Your task to perform on an android device: turn on airplane mode Image 0: 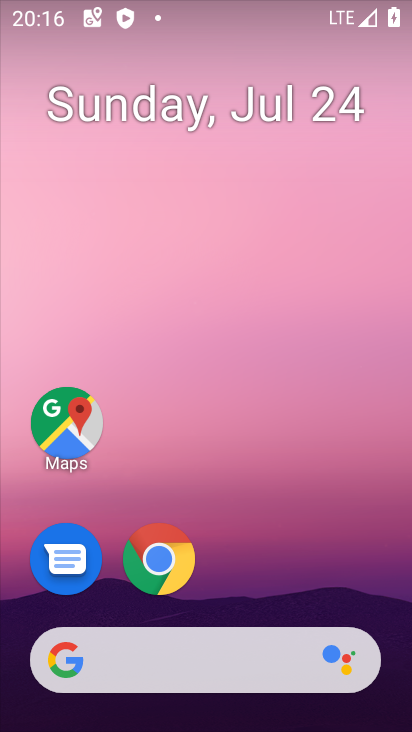
Step 0: press home button
Your task to perform on an android device: turn on airplane mode Image 1: 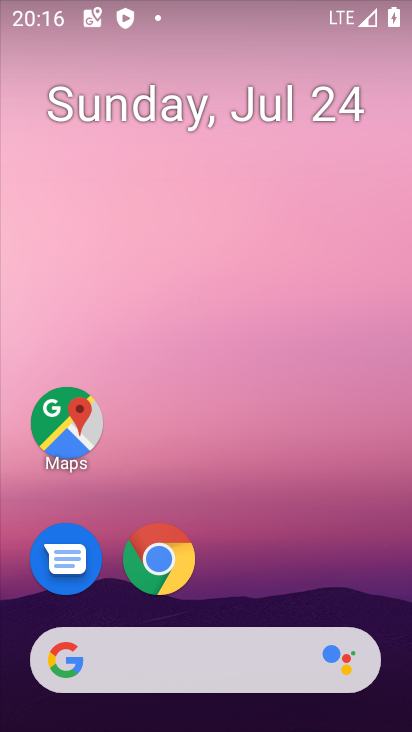
Step 1: drag from (375, 580) to (371, 66)
Your task to perform on an android device: turn on airplane mode Image 2: 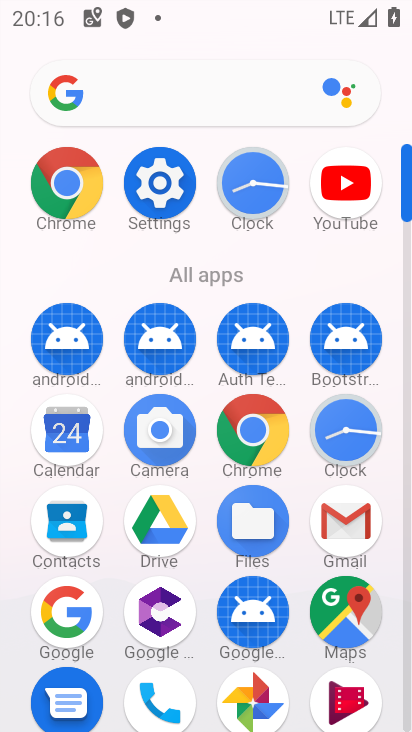
Step 2: click (172, 193)
Your task to perform on an android device: turn on airplane mode Image 3: 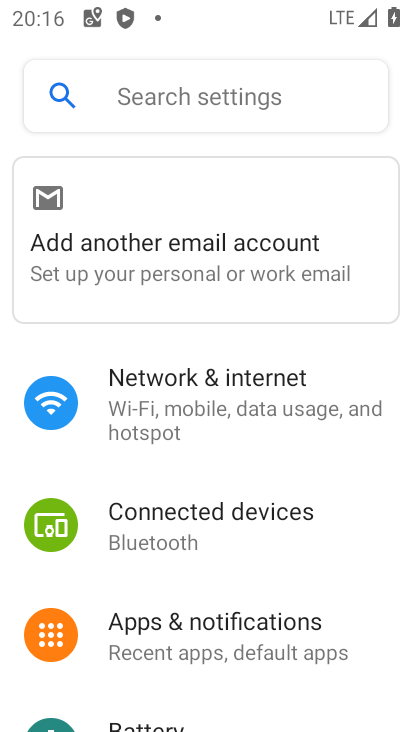
Step 3: drag from (345, 577) to (348, 452)
Your task to perform on an android device: turn on airplane mode Image 4: 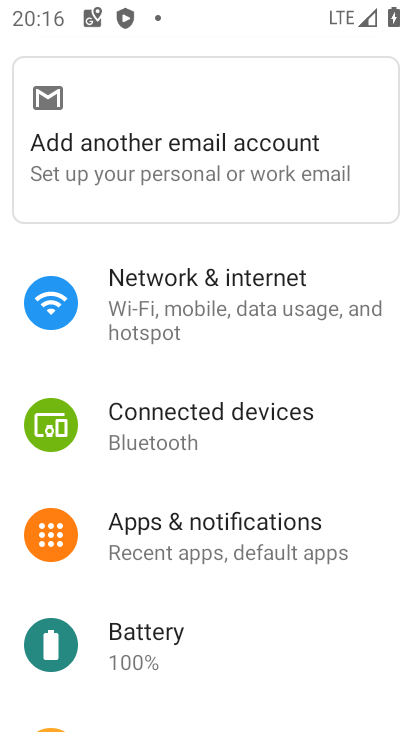
Step 4: drag from (354, 616) to (354, 469)
Your task to perform on an android device: turn on airplane mode Image 5: 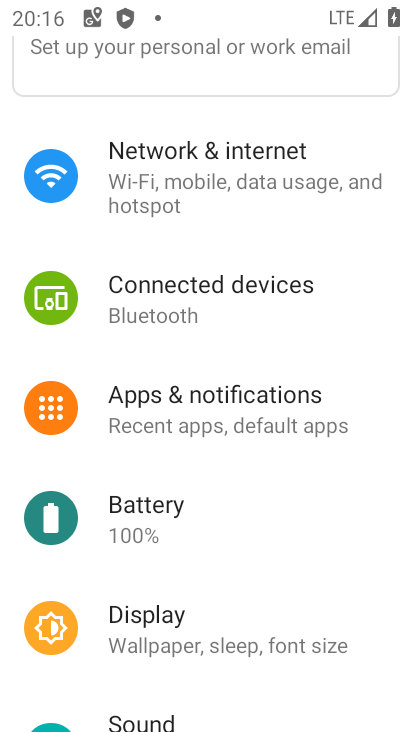
Step 5: drag from (371, 592) to (367, 455)
Your task to perform on an android device: turn on airplane mode Image 6: 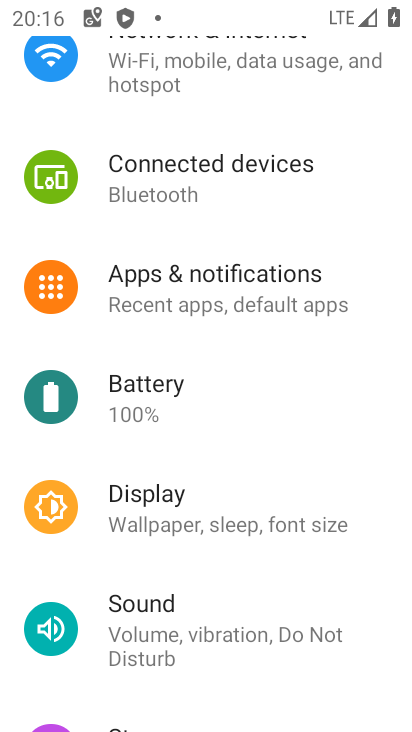
Step 6: drag from (372, 615) to (375, 460)
Your task to perform on an android device: turn on airplane mode Image 7: 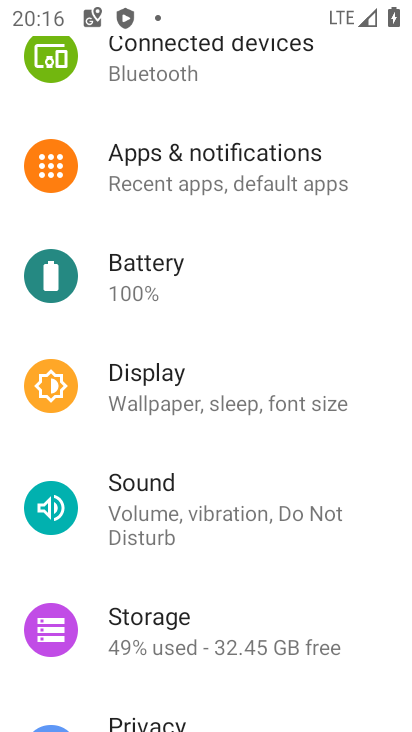
Step 7: drag from (375, 663) to (368, 494)
Your task to perform on an android device: turn on airplane mode Image 8: 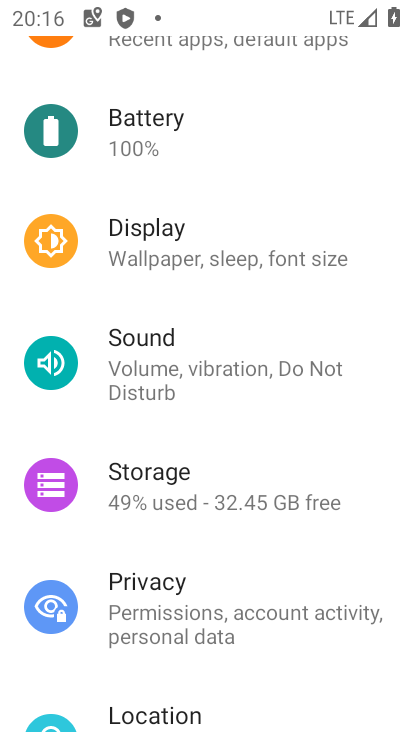
Step 8: drag from (383, 681) to (374, 516)
Your task to perform on an android device: turn on airplane mode Image 9: 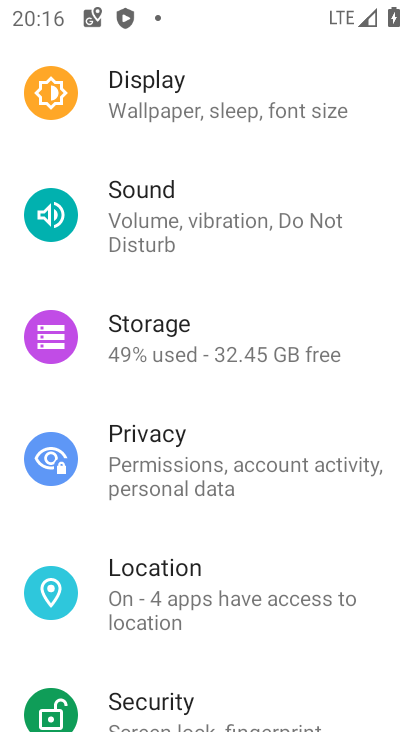
Step 9: drag from (356, 670) to (350, 480)
Your task to perform on an android device: turn on airplane mode Image 10: 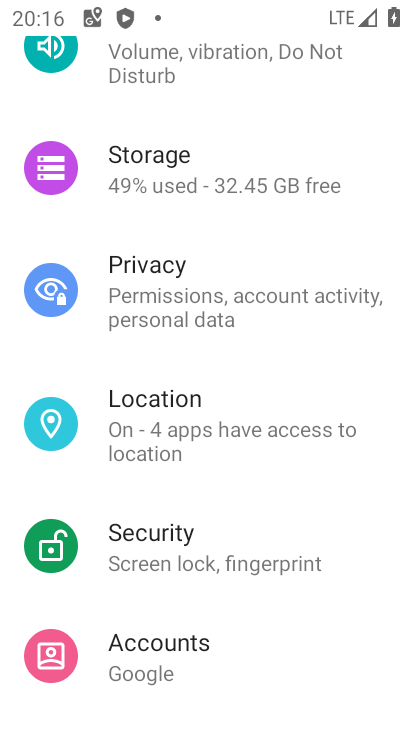
Step 10: drag from (371, 214) to (378, 319)
Your task to perform on an android device: turn on airplane mode Image 11: 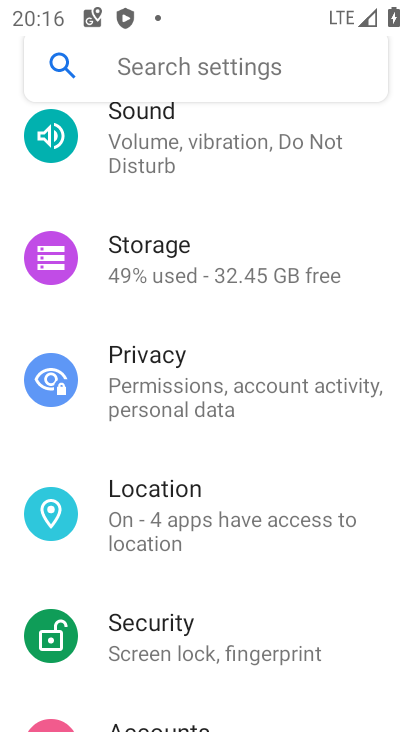
Step 11: drag from (375, 187) to (375, 301)
Your task to perform on an android device: turn on airplane mode Image 12: 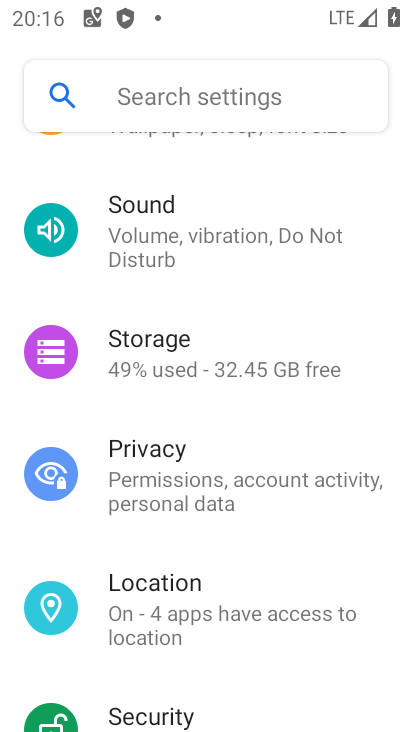
Step 12: drag from (364, 186) to (370, 324)
Your task to perform on an android device: turn on airplane mode Image 13: 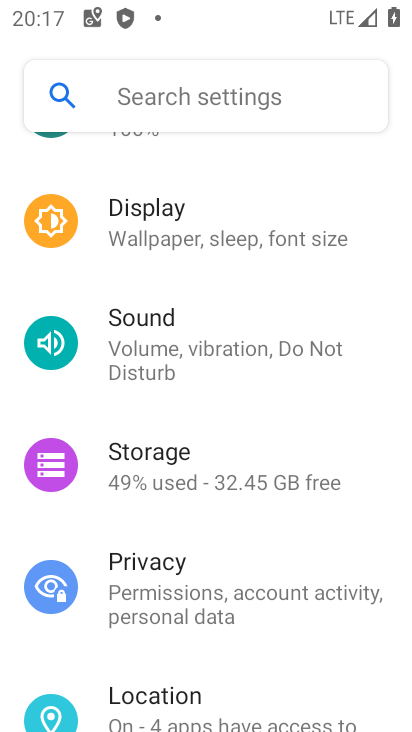
Step 13: drag from (371, 164) to (382, 392)
Your task to perform on an android device: turn on airplane mode Image 14: 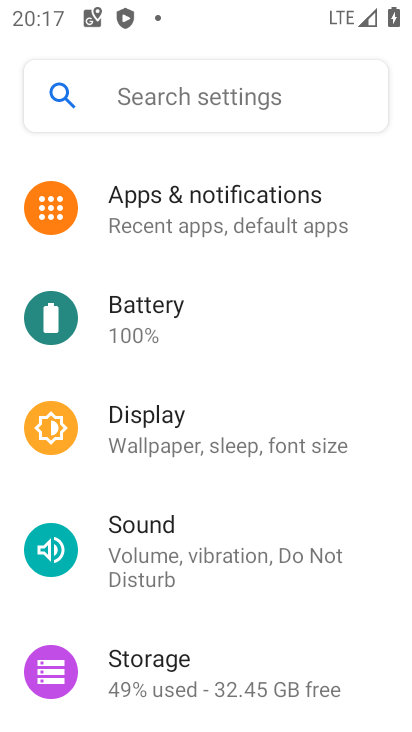
Step 14: drag from (380, 165) to (380, 394)
Your task to perform on an android device: turn on airplane mode Image 15: 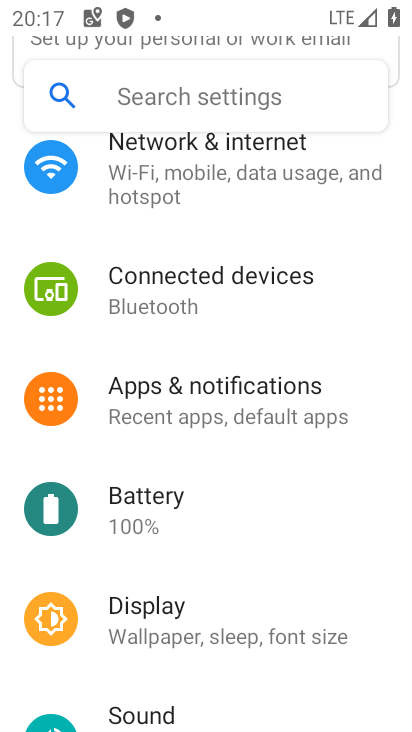
Step 15: drag from (360, 191) to (361, 338)
Your task to perform on an android device: turn on airplane mode Image 16: 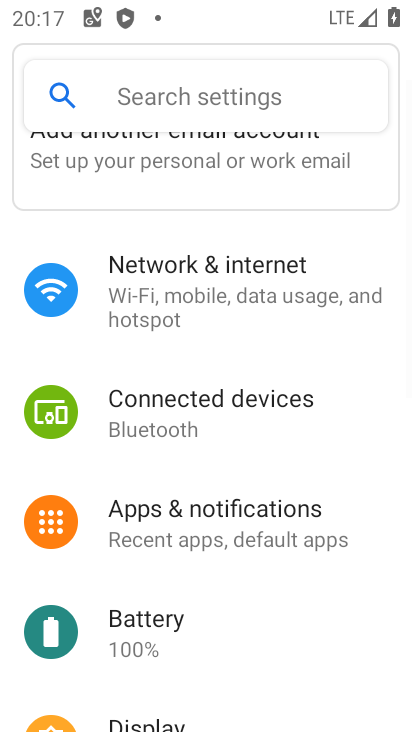
Step 16: click (269, 277)
Your task to perform on an android device: turn on airplane mode Image 17: 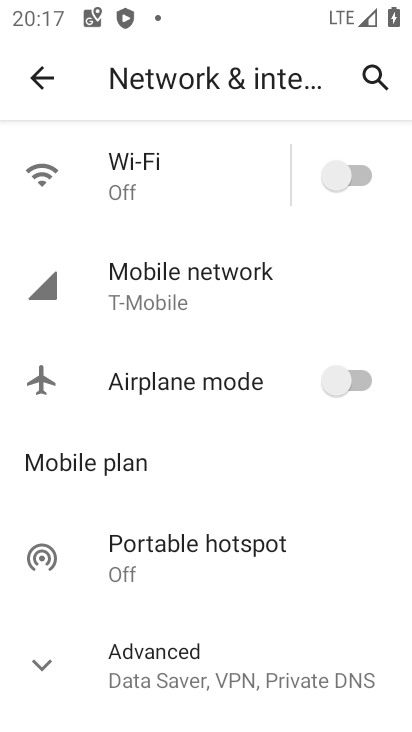
Step 17: click (348, 370)
Your task to perform on an android device: turn on airplane mode Image 18: 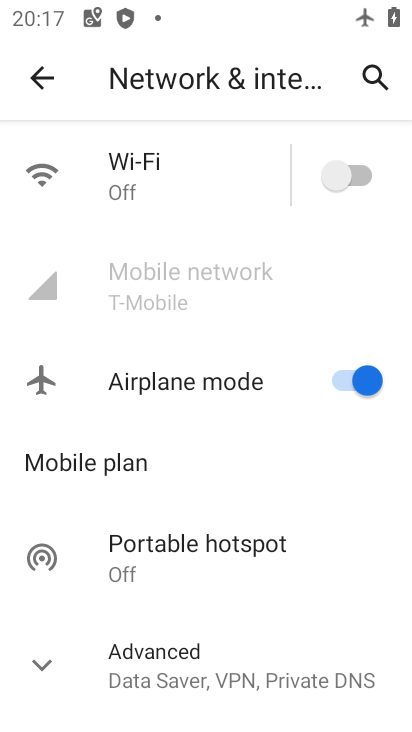
Step 18: task complete